Your task to perform on an android device: toggle location history Image 0: 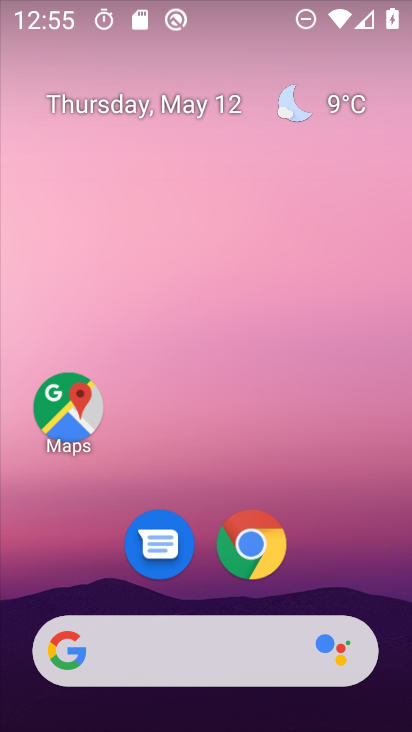
Step 0: drag from (201, 701) to (205, 153)
Your task to perform on an android device: toggle location history Image 1: 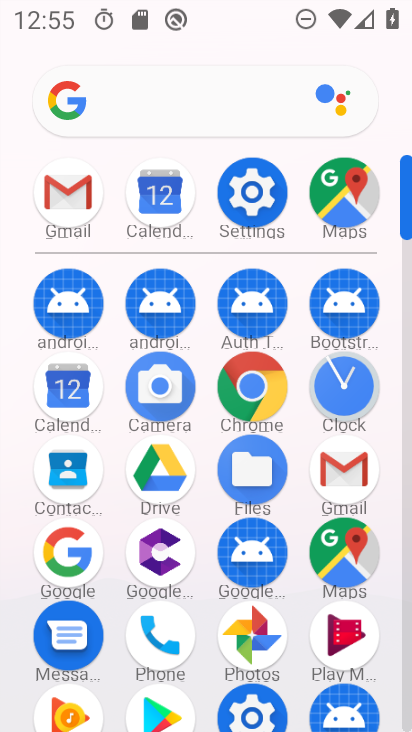
Step 1: click (253, 195)
Your task to perform on an android device: toggle location history Image 2: 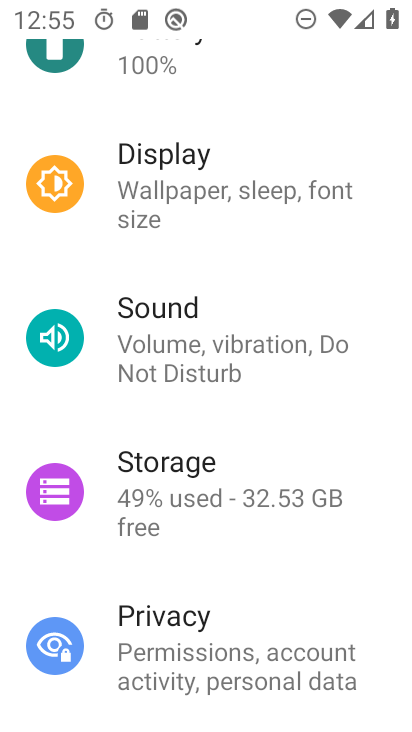
Step 2: drag from (193, 621) to (207, 199)
Your task to perform on an android device: toggle location history Image 3: 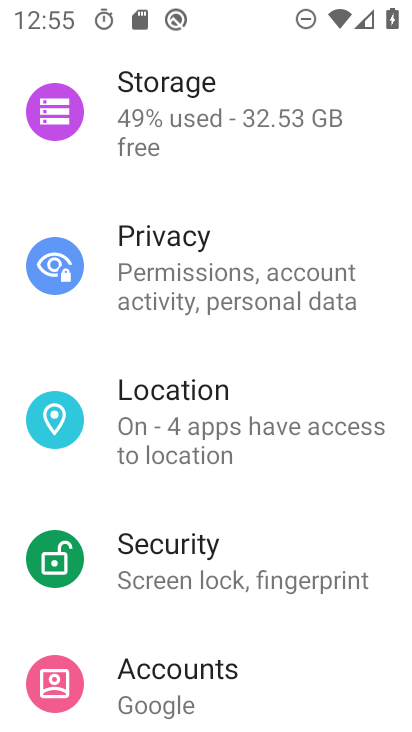
Step 3: click (188, 428)
Your task to perform on an android device: toggle location history Image 4: 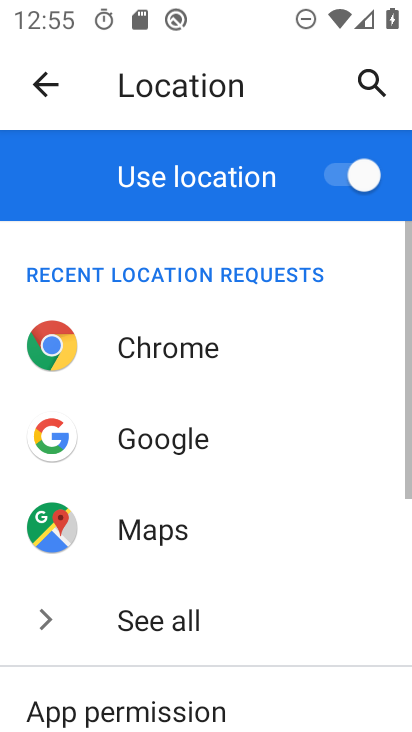
Step 4: drag from (237, 697) to (249, 359)
Your task to perform on an android device: toggle location history Image 5: 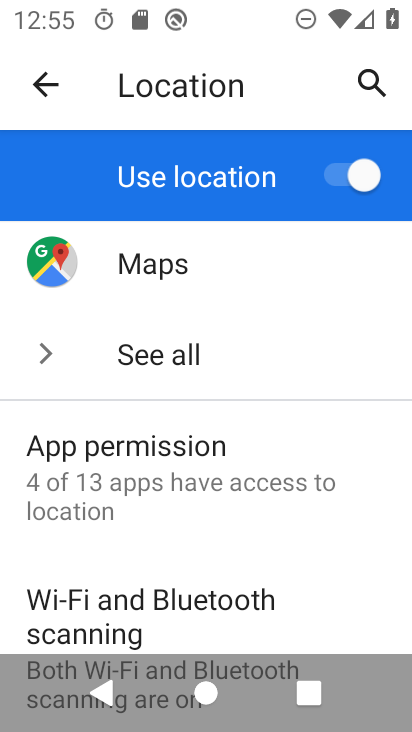
Step 5: drag from (235, 626) to (255, 261)
Your task to perform on an android device: toggle location history Image 6: 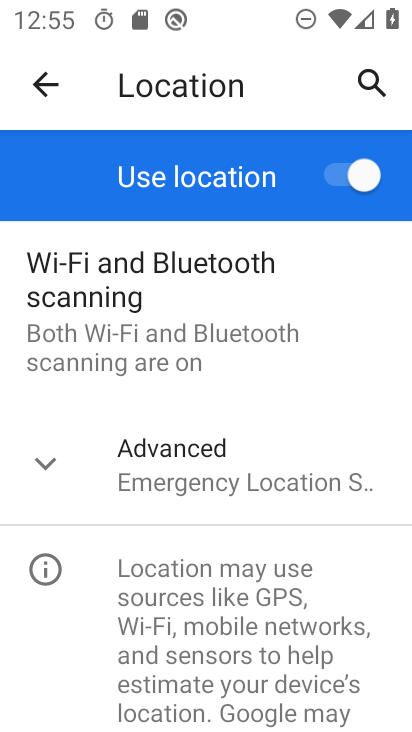
Step 6: click (186, 479)
Your task to perform on an android device: toggle location history Image 7: 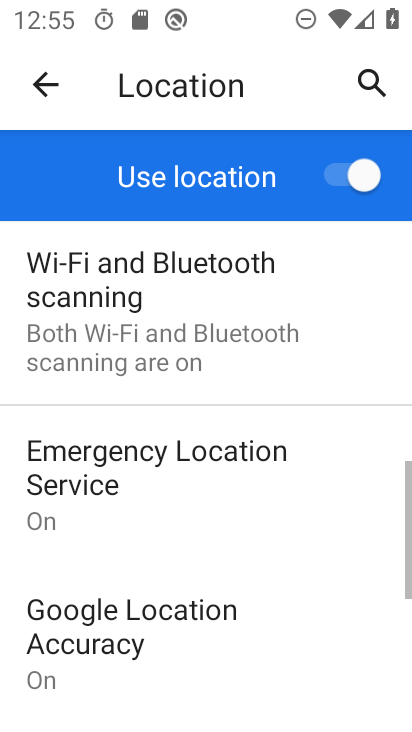
Step 7: drag from (199, 676) to (203, 388)
Your task to perform on an android device: toggle location history Image 8: 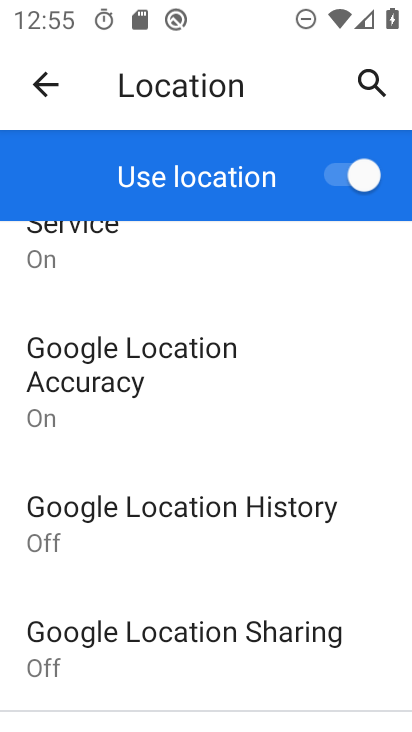
Step 8: click (219, 508)
Your task to perform on an android device: toggle location history Image 9: 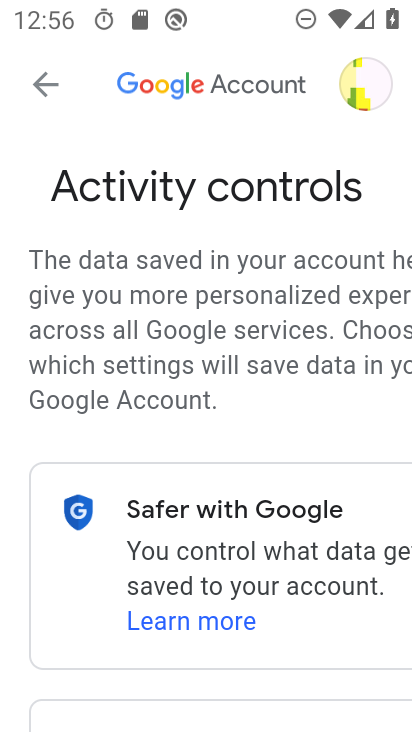
Step 9: drag from (221, 676) to (235, 220)
Your task to perform on an android device: toggle location history Image 10: 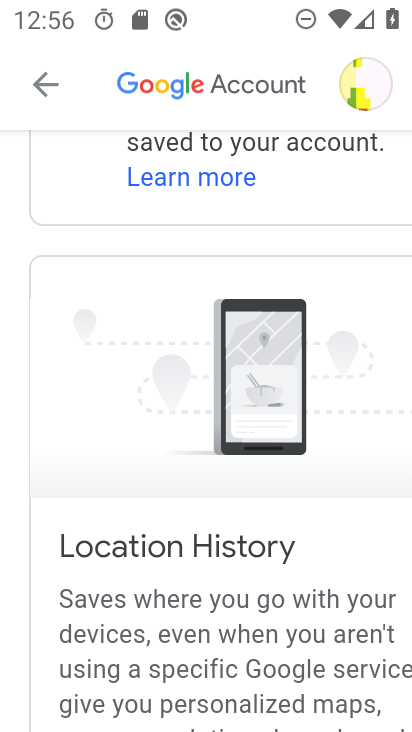
Step 10: drag from (191, 657) to (229, 222)
Your task to perform on an android device: toggle location history Image 11: 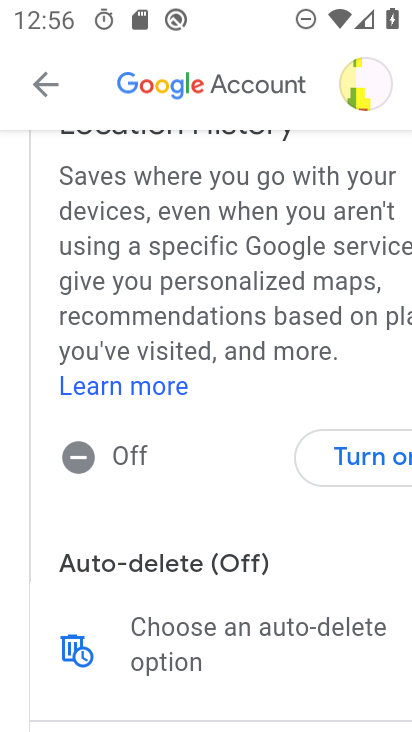
Step 11: click (359, 462)
Your task to perform on an android device: toggle location history Image 12: 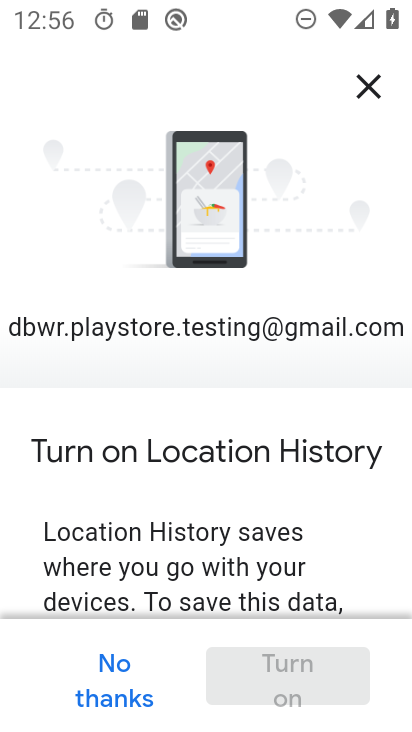
Step 12: drag from (245, 598) to (245, 214)
Your task to perform on an android device: toggle location history Image 13: 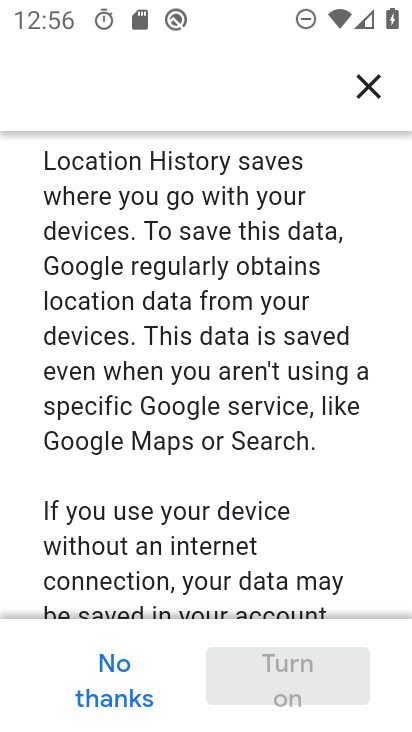
Step 13: drag from (259, 597) to (285, 190)
Your task to perform on an android device: toggle location history Image 14: 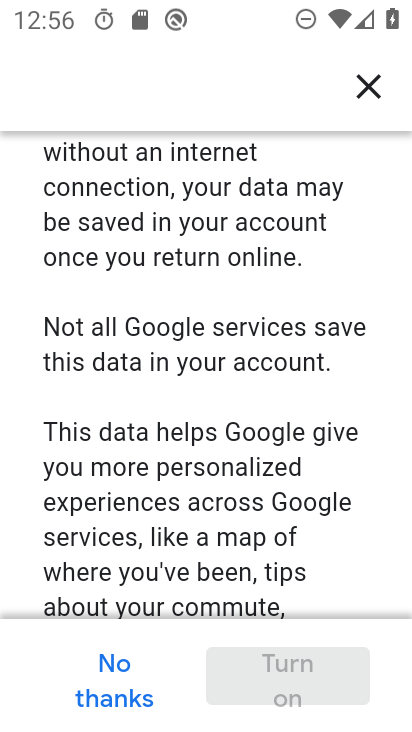
Step 14: drag from (250, 593) to (252, 137)
Your task to perform on an android device: toggle location history Image 15: 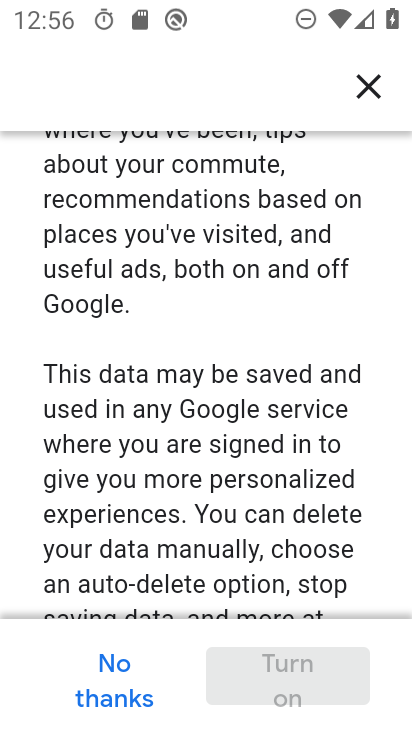
Step 15: drag from (224, 601) to (251, 212)
Your task to perform on an android device: toggle location history Image 16: 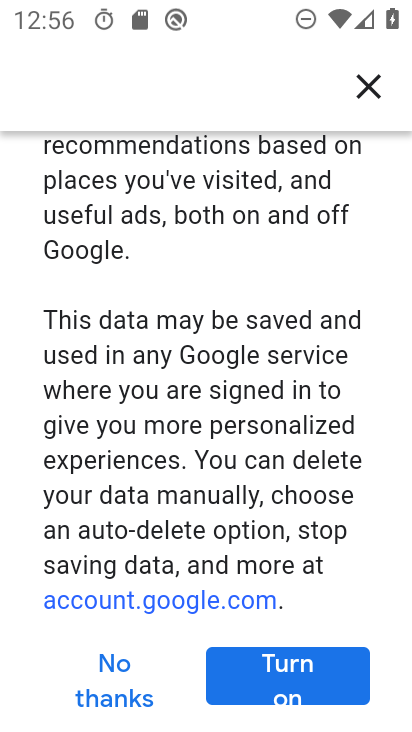
Step 16: click (310, 676)
Your task to perform on an android device: toggle location history Image 17: 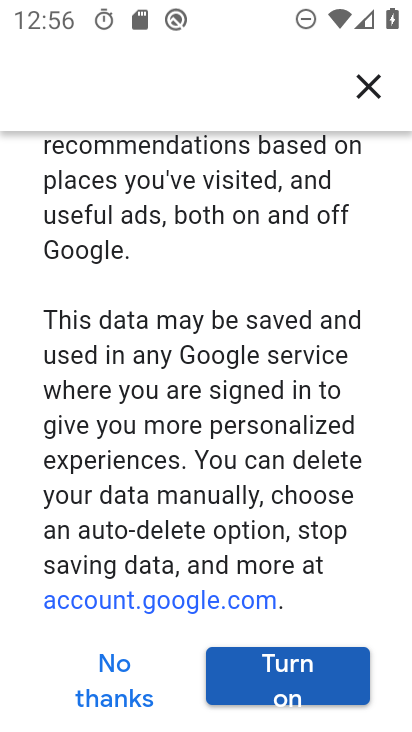
Step 17: click (299, 674)
Your task to perform on an android device: toggle location history Image 18: 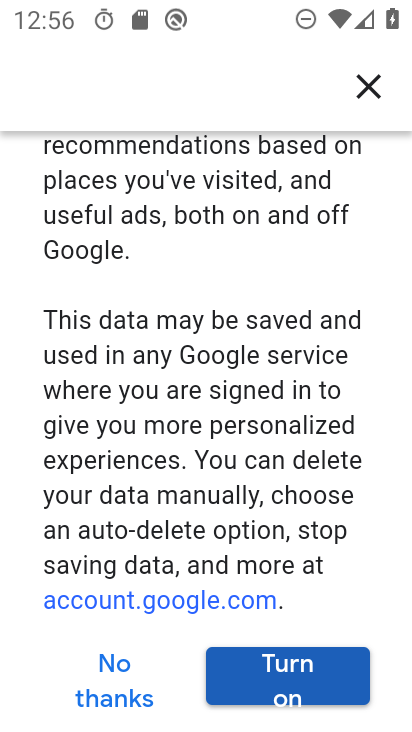
Step 18: click (297, 673)
Your task to perform on an android device: toggle location history Image 19: 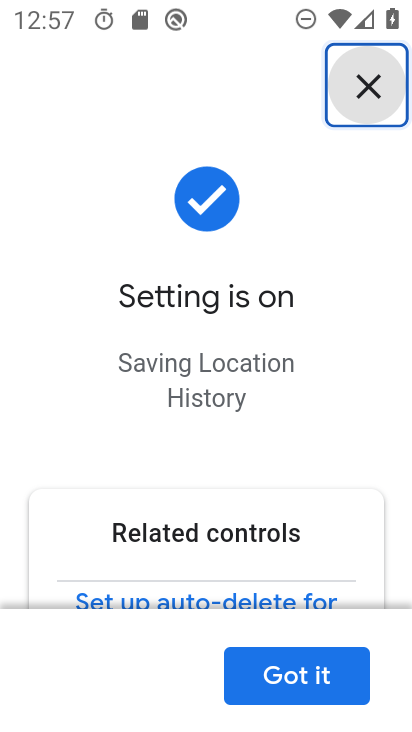
Step 19: task complete